Your task to perform on an android device: turn off improve location accuracy Image 0: 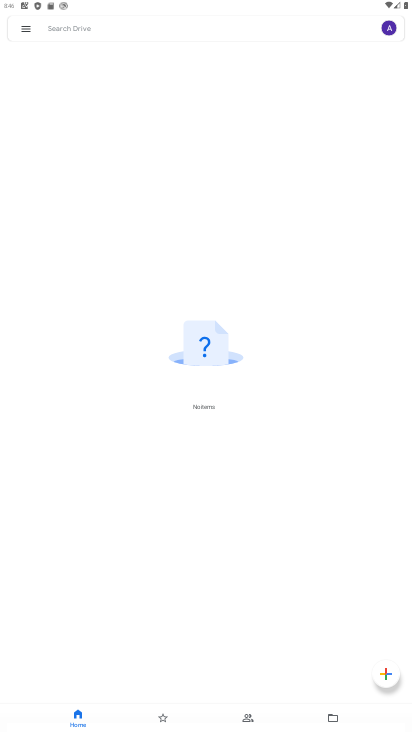
Step 0: press home button
Your task to perform on an android device: turn off improve location accuracy Image 1: 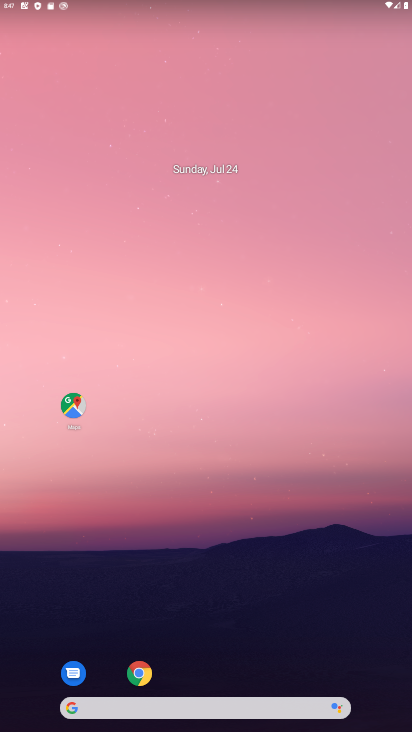
Step 1: drag from (189, 648) to (189, 80)
Your task to perform on an android device: turn off improve location accuracy Image 2: 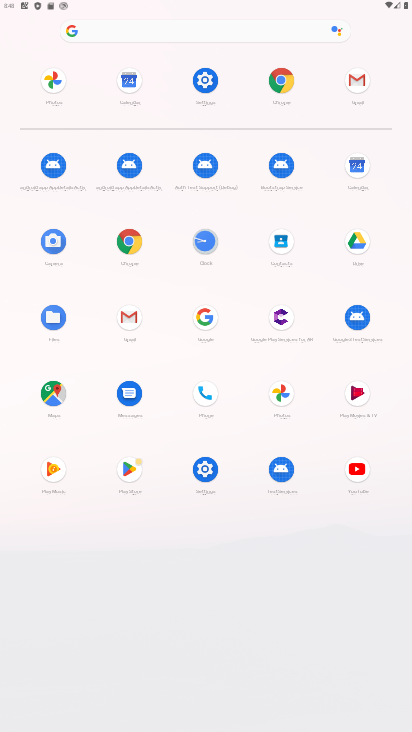
Step 2: click (204, 476)
Your task to perform on an android device: turn off improve location accuracy Image 3: 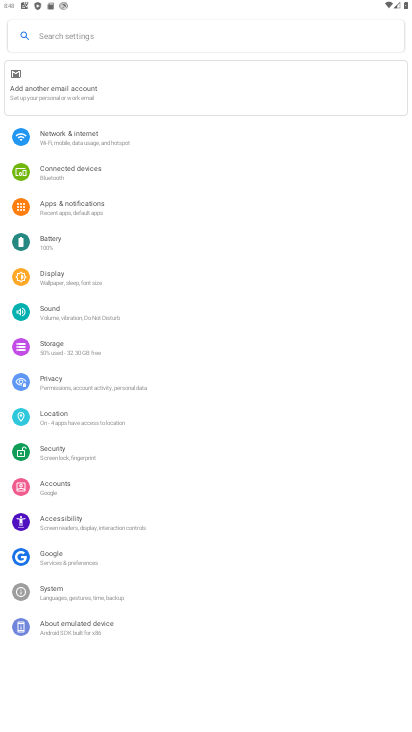
Step 3: click (49, 410)
Your task to perform on an android device: turn off improve location accuracy Image 4: 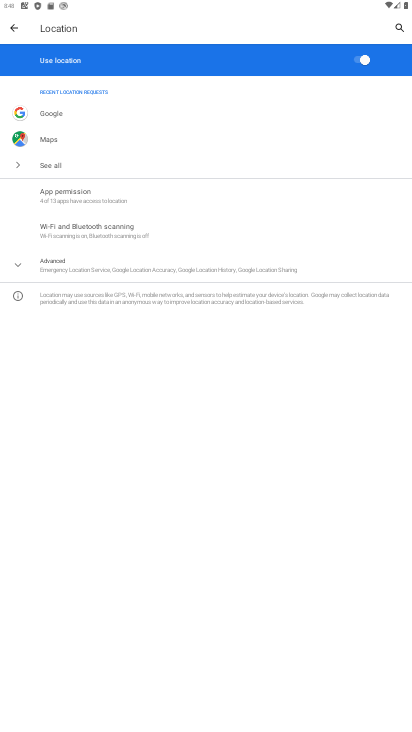
Step 4: click (38, 268)
Your task to perform on an android device: turn off improve location accuracy Image 5: 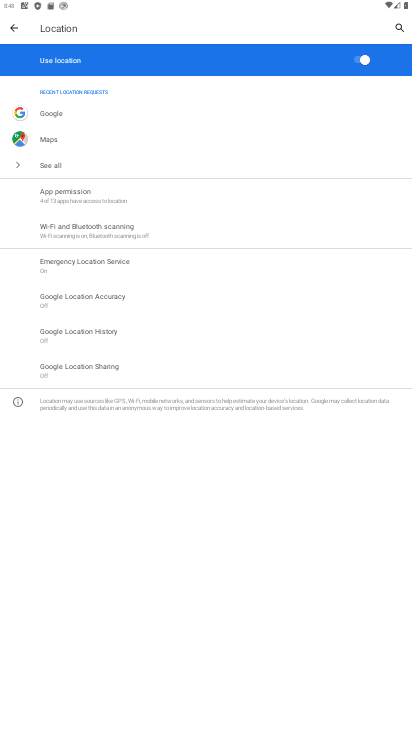
Step 5: click (71, 295)
Your task to perform on an android device: turn off improve location accuracy Image 6: 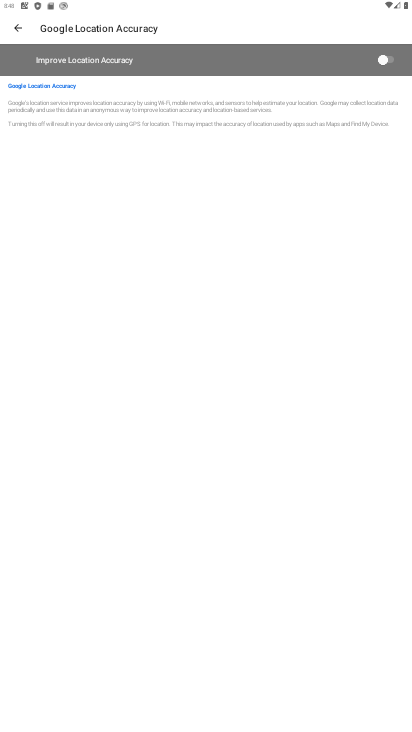
Step 6: task complete